Your task to perform on an android device: turn vacation reply on in the gmail app Image 0: 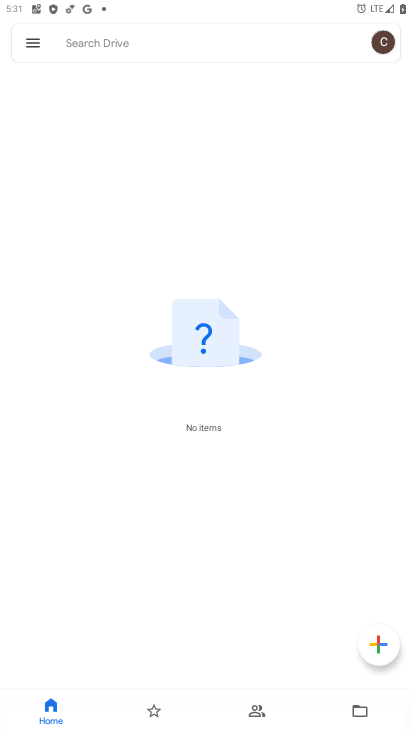
Step 0: press home button
Your task to perform on an android device: turn vacation reply on in the gmail app Image 1: 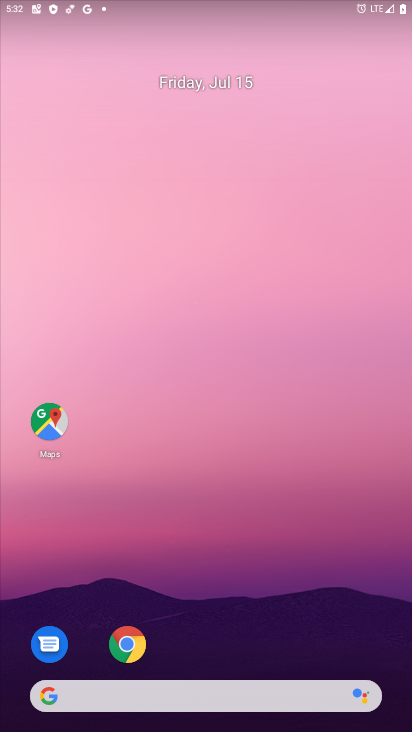
Step 1: drag from (231, 680) to (381, 226)
Your task to perform on an android device: turn vacation reply on in the gmail app Image 2: 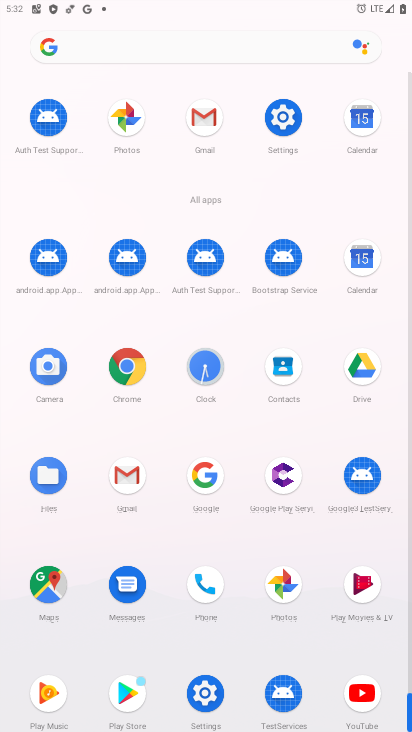
Step 2: click (132, 470)
Your task to perform on an android device: turn vacation reply on in the gmail app Image 3: 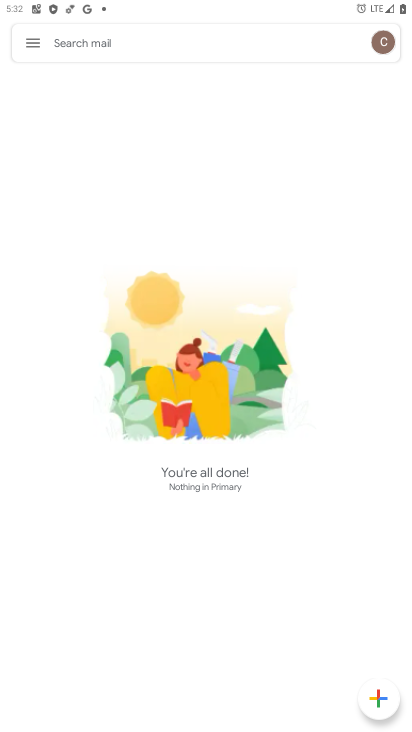
Step 3: click (31, 43)
Your task to perform on an android device: turn vacation reply on in the gmail app Image 4: 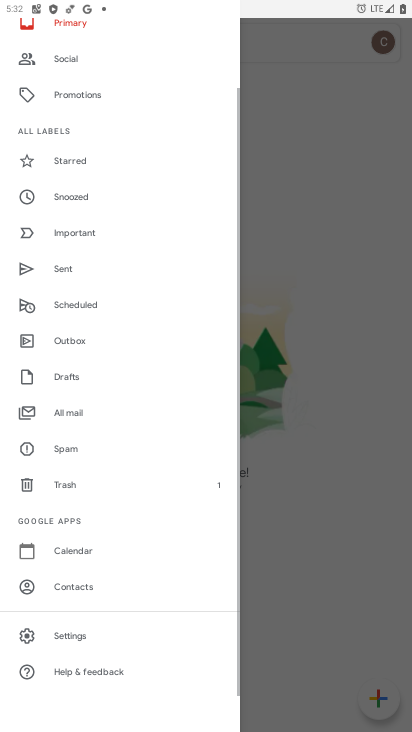
Step 4: click (63, 637)
Your task to perform on an android device: turn vacation reply on in the gmail app Image 5: 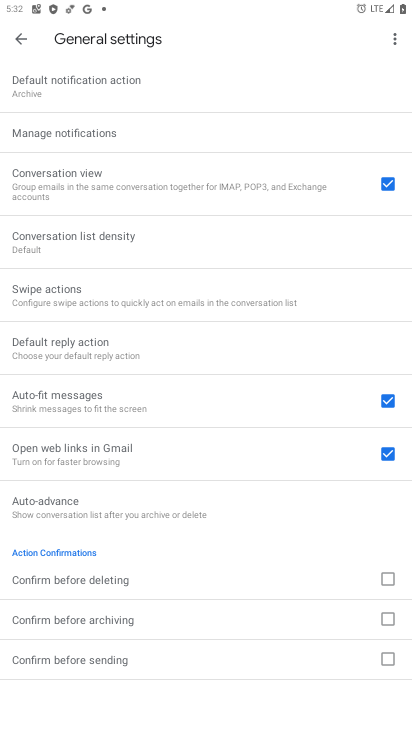
Step 5: click (20, 35)
Your task to perform on an android device: turn vacation reply on in the gmail app Image 6: 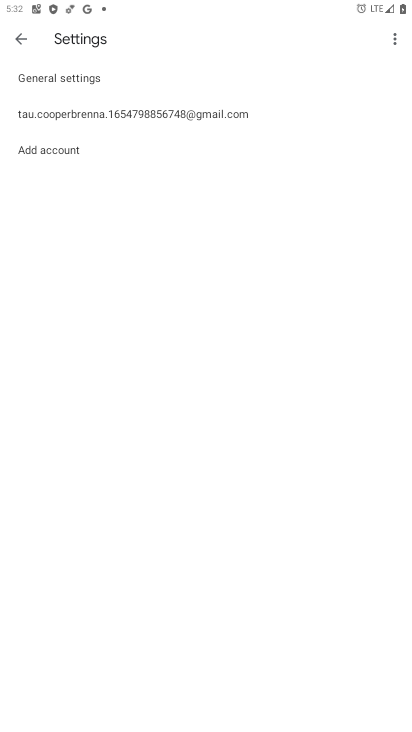
Step 6: click (82, 112)
Your task to perform on an android device: turn vacation reply on in the gmail app Image 7: 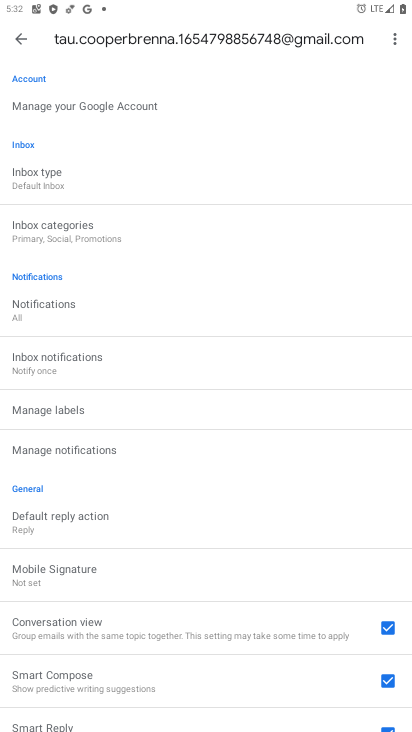
Step 7: drag from (98, 653) to (75, 235)
Your task to perform on an android device: turn vacation reply on in the gmail app Image 8: 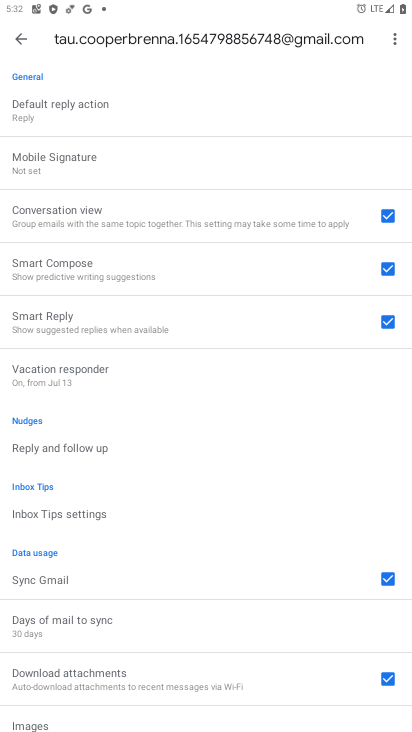
Step 8: click (30, 378)
Your task to perform on an android device: turn vacation reply on in the gmail app Image 9: 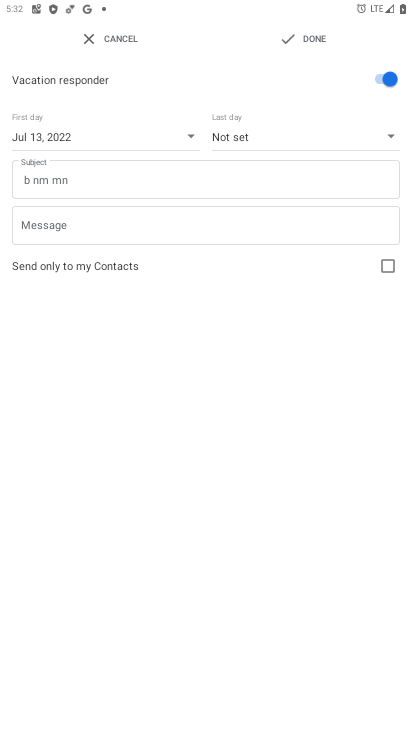
Step 9: click (307, 25)
Your task to perform on an android device: turn vacation reply on in the gmail app Image 10: 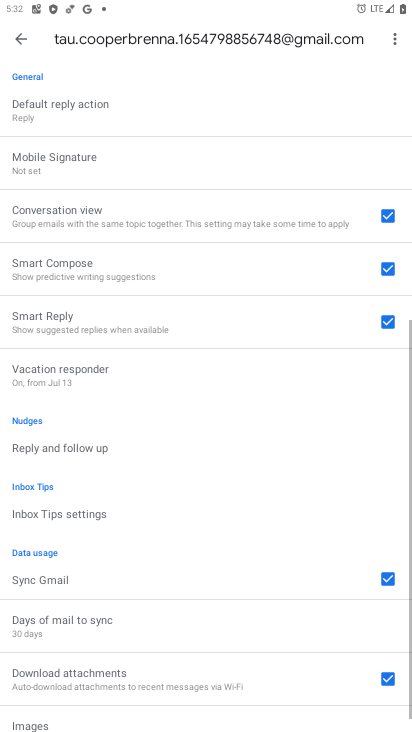
Step 10: task complete